Your task to perform on an android device: turn off location history Image 0: 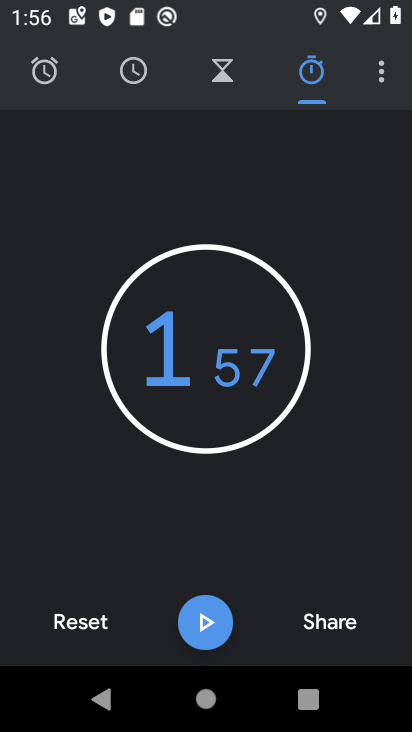
Step 0: press home button
Your task to perform on an android device: turn off location history Image 1: 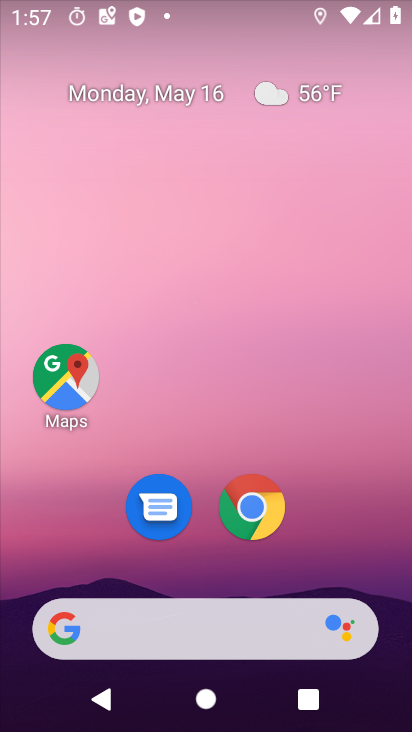
Step 1: drag from (210, 572) to (218, 155)
Your task to perform on an android device: turn off location history Image 2: 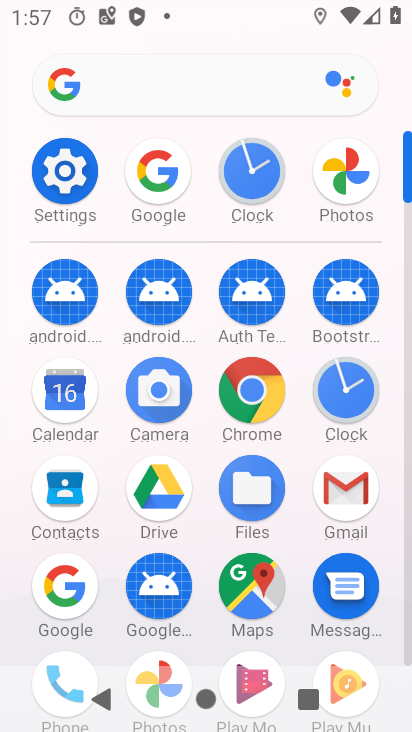
Step 2: click (68, 175)
Your task to perform on an android device: turn off location history Image 3: 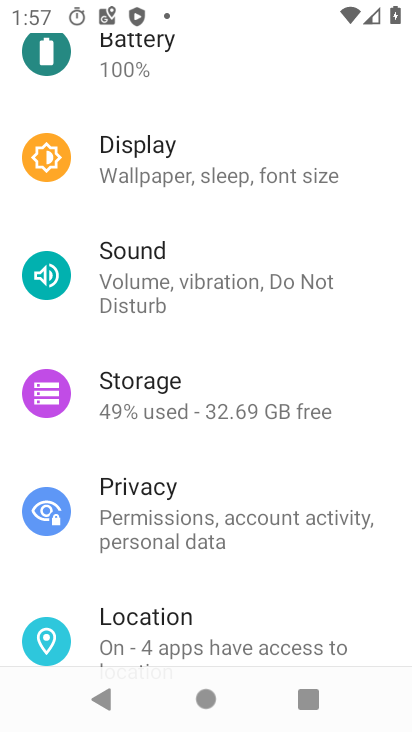
Step 3: click (156, 620)
Your task to perform on an android device: turn off location history Image 4: 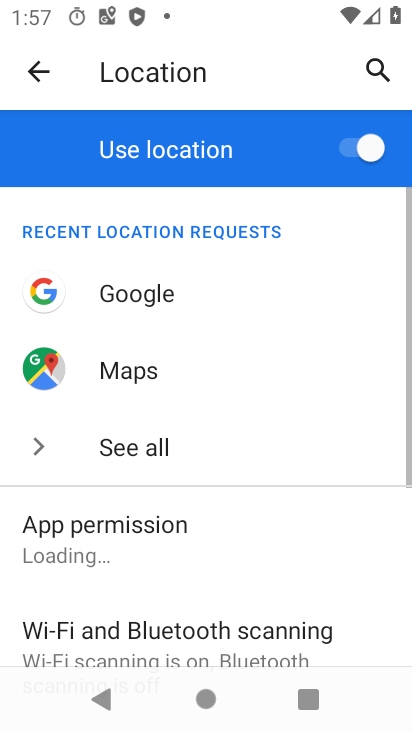
Step 4: drag from (214, 505) to (216, 137)
Your task to perform on an android device: turn off location history Image 5: 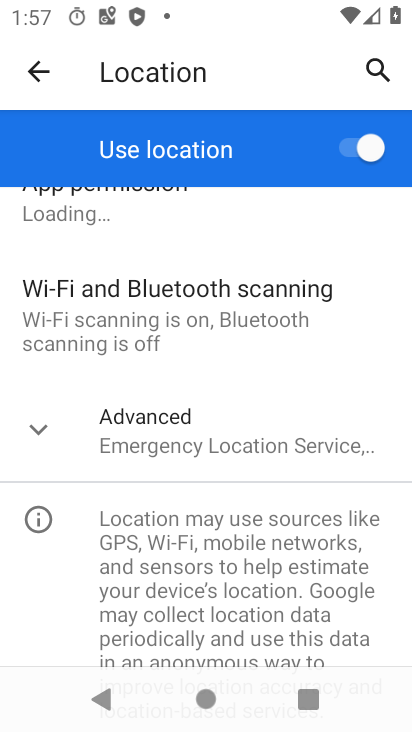
Step 5: click (155, 434)
Your task to perform on an android device: turn off location history Image 6: 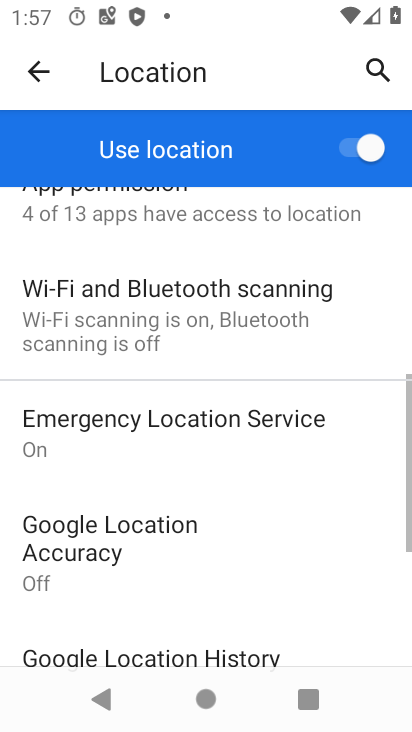
Step 6: drag from (249, 552) to (241, 308)
Your task to perform on an android device: turn off location history Image 7: 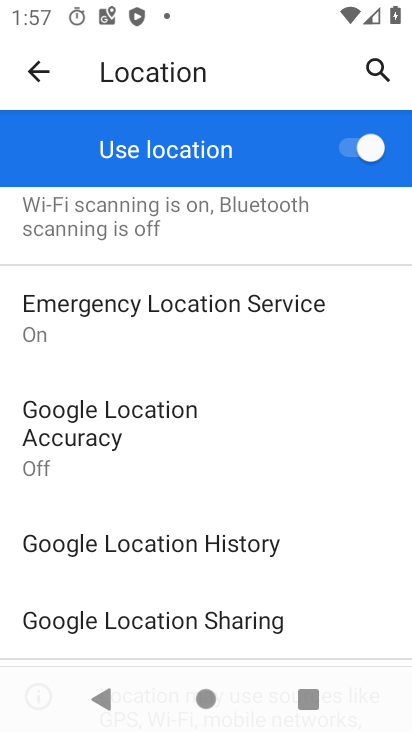
Step 7: click (226, 550)
Your task to perform on an android device: turn off location history Image 8: 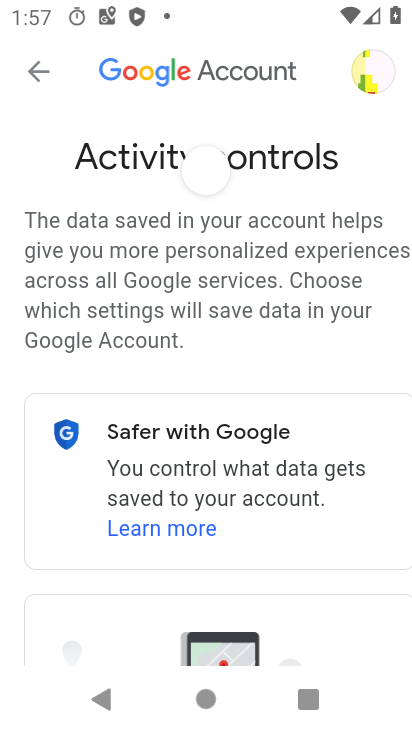
Step 8: drag from (196, 502) to (244, 135)
Your task to perform on an android device: turn off location history Image 9: 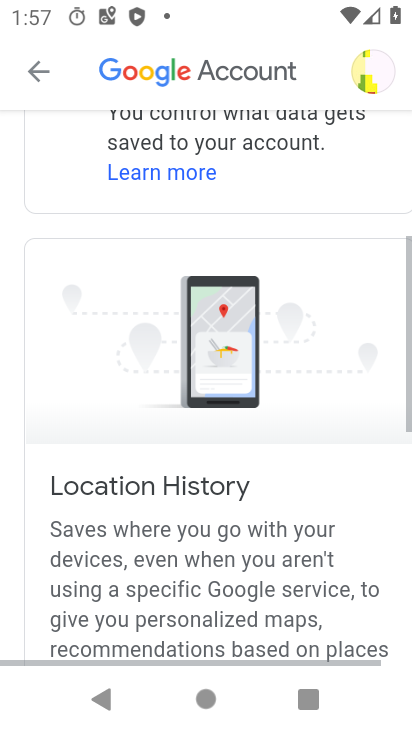
Step 9: drag from (209, 592) to (226, 180)
Your task to perform on an android device: turn off location history Image 10: 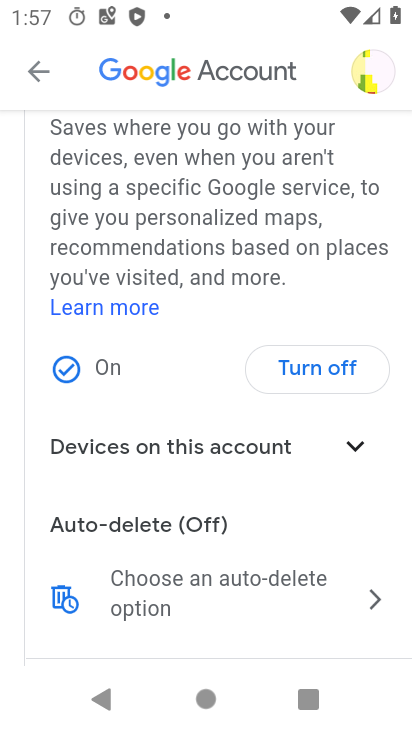
Step 10: click (322, 372)
Your task to perform on an android device: turn off location history Image 11: 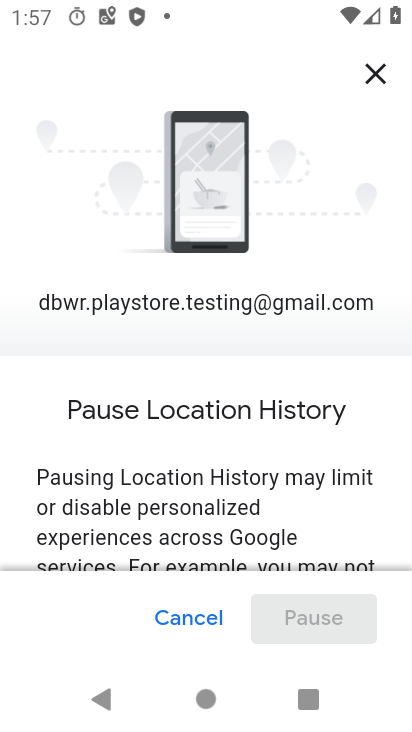
Step 11: drag from (287, 568) to (296, 82)
Your task to perform on an android device: turn off location history Image 12: 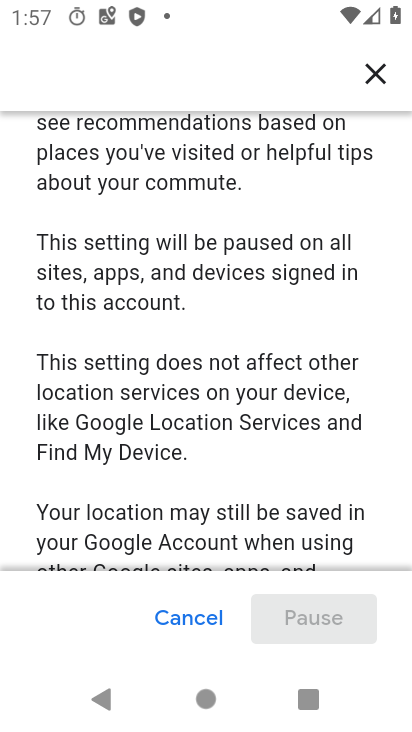
Step 12: drag from (258, 452) to (296, 0)
Your task to perform on an android device: turn off location history Image 13: 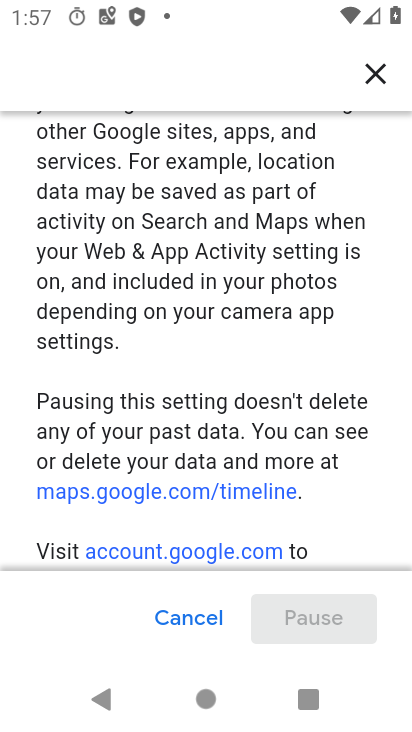
Step 13: drag from (303, 508) to (298, 81)
Your task to perform on an android device: turn off location history Image 14: 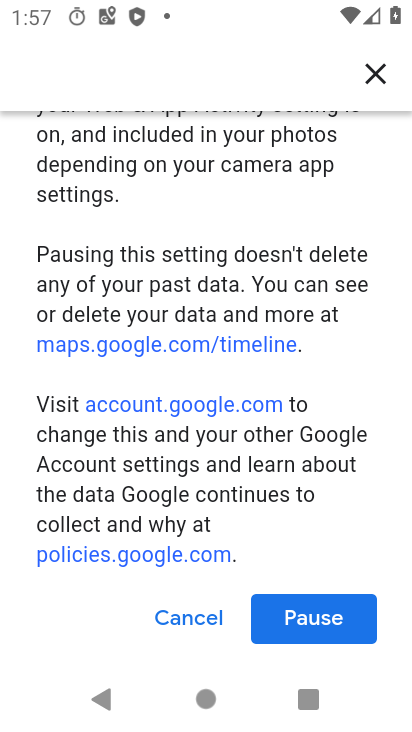
Step 14: click (314, 622)
Your task to perform on an android device: turn off location history Image 15: 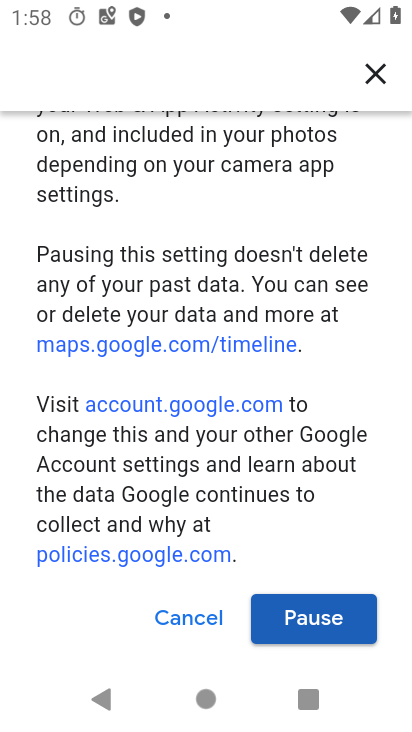
Step 15: click (308, 621)
Your task to perform on an android device: turn off location history Image 16: 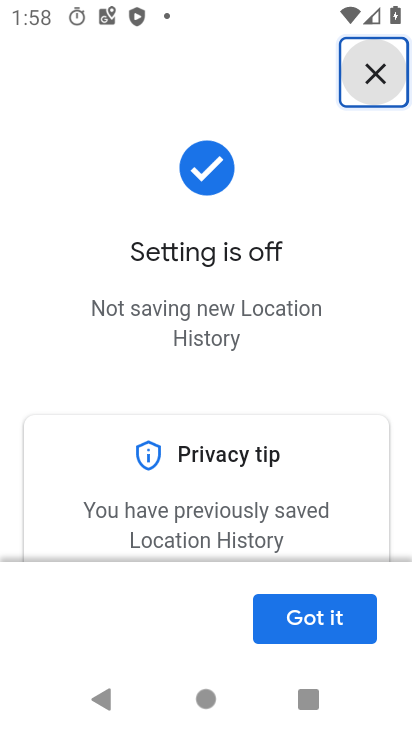
Step 16: click (308, 621)
Your task to perform on an android device: turn off location history Image 17: 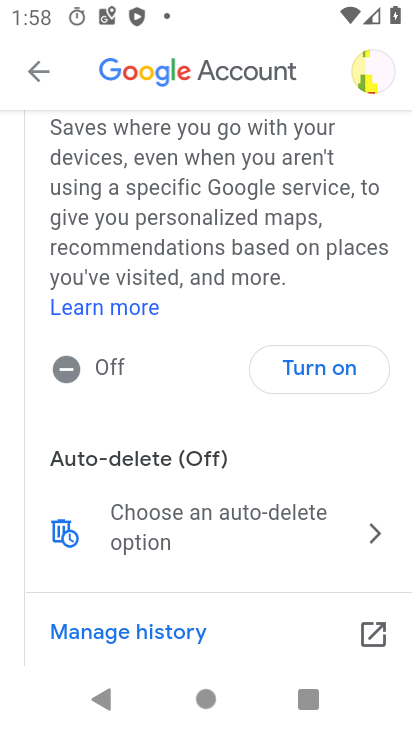
Step 17: task complete